Your task to perform on an android device: turn on notifications settings in the gmail app Image 0: 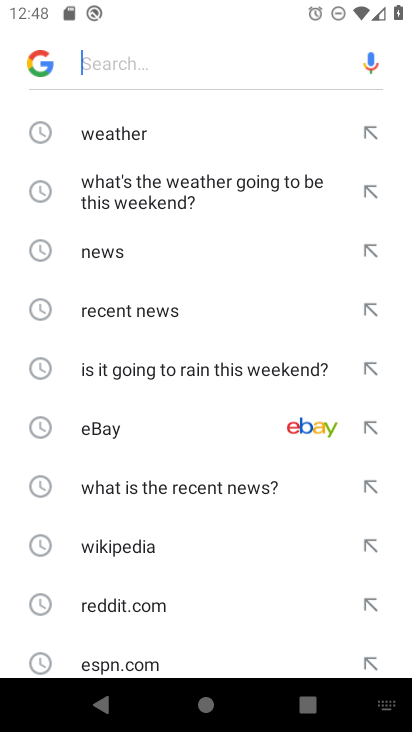
Step 0: press home button
Your task to perform on an android device: turn on notifications settings in the gmail app Image 1: 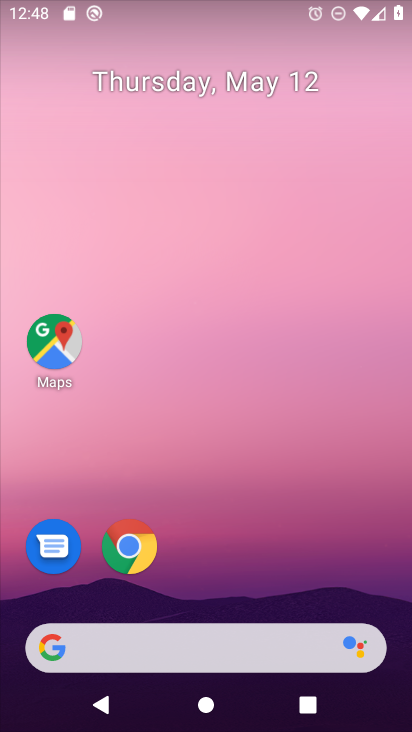
Step 1: drag from (398, 647) to (304, 64)
Your task to perform on an android device: turn on notifications settings in the gmail app Image 2: 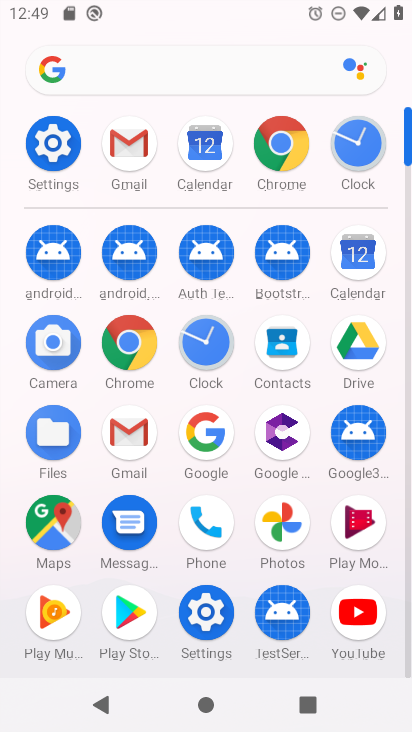
Step 2: click (143, 428)
Your task to perform on an android device: turn on notifications settings in the gmail app Image 3: 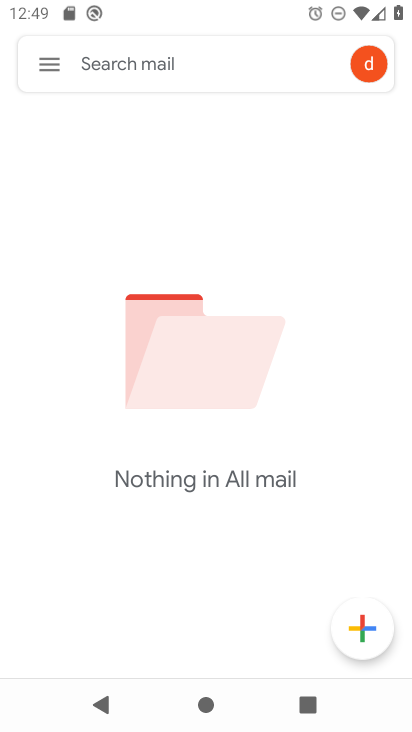
Step 3: click (52, 67)
Your task to perform on an android device: turn on notifications settings in the gmail app Image 4: 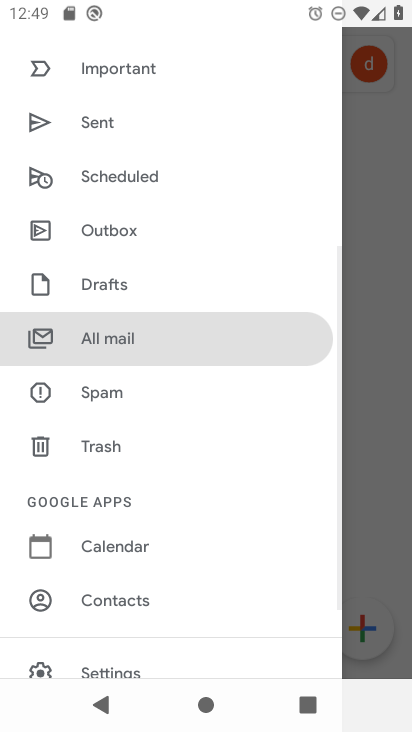
Step 4: click (148, 662)
Your task to perform on an android device: turn on notifications settings in the gmail app Image 5: 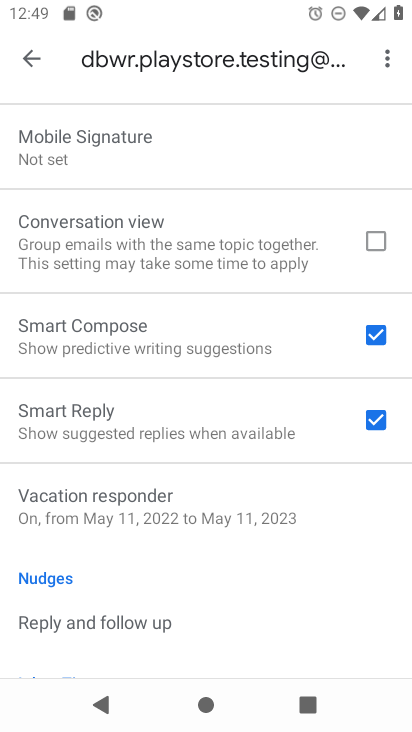
Step 5: drag from (190, 206) to (205, 729)
Your task to perform on an android device: turn on notifications settings in the gmail app Image 6: 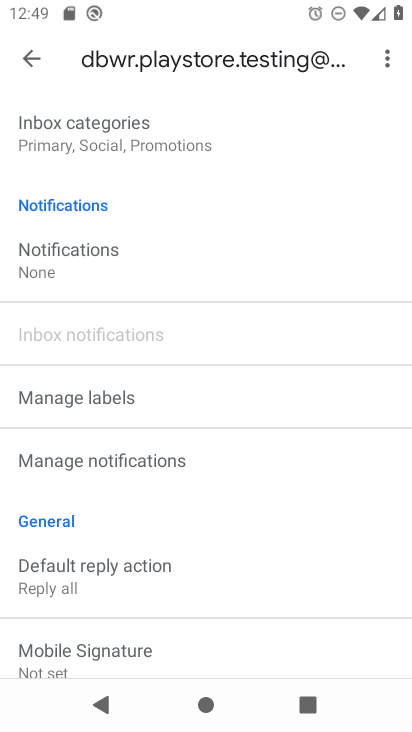
Step 6: click (152, 268)
Your task to perform on an android device: turn on notifications settings in the gmail app Image 7: 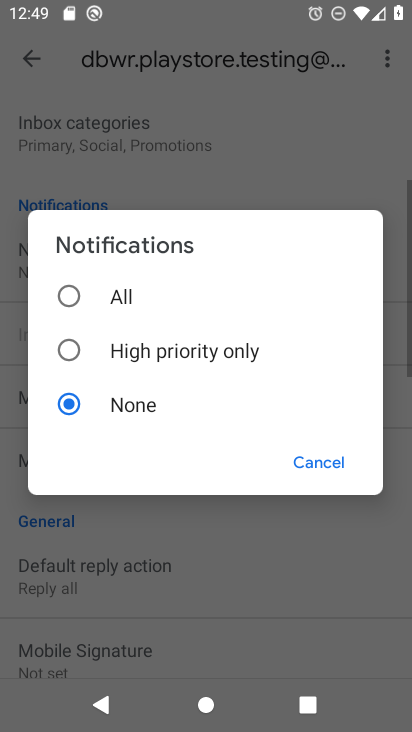
Step 7: click (85, 294)
Your task to perform on an android device: turn on notifications settings in the gmail app Image 8: 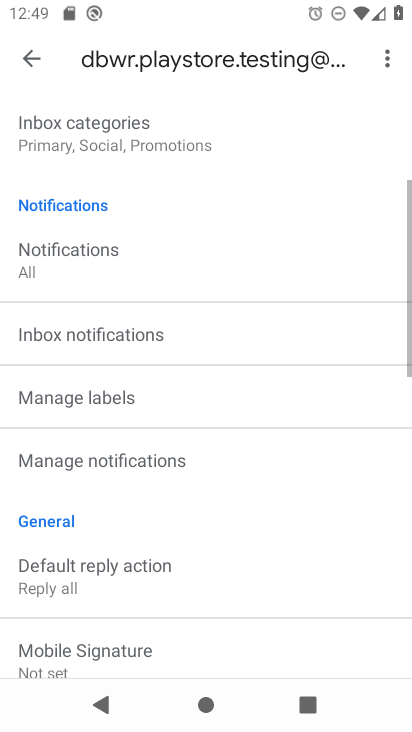
Step 8: task complete